Your task to perform on an android device: What is the recent news? Image 0: 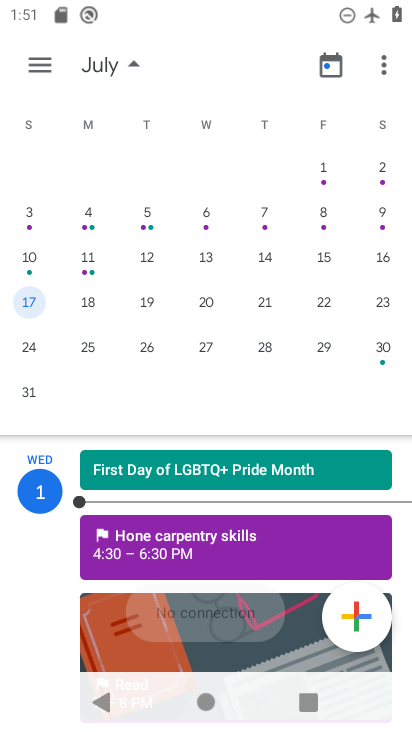
Step 0: press home button
Your task to perform on an android device: What is the recent news? Image 1: 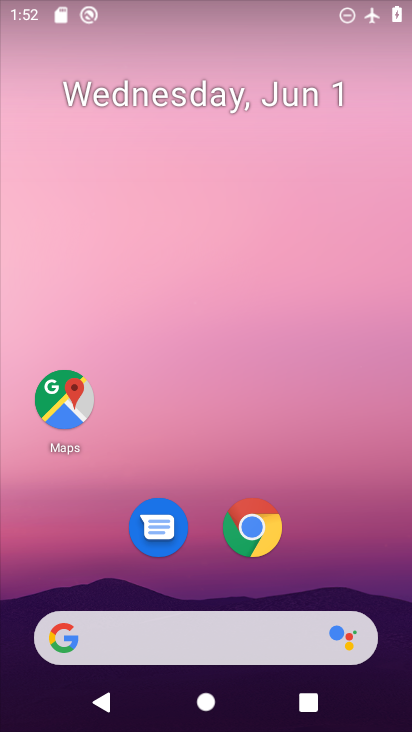
Step 1: click (263, 638)
Your task to perform on an android device: What is the recent news? Image 2: 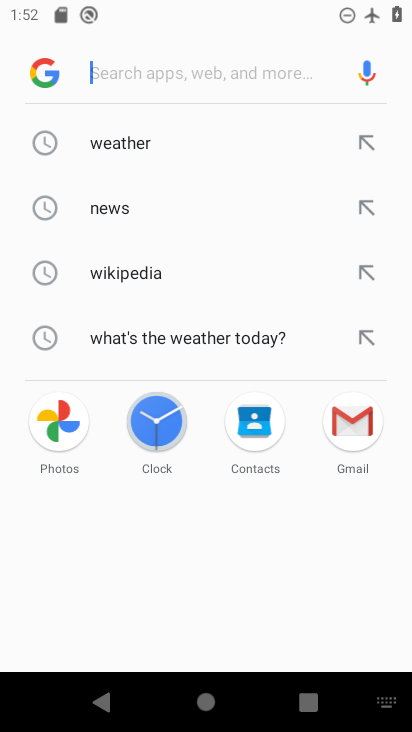
Step 2: type "What is the recent news?"
Your task to perform on an android device: What is the recent news? Image 3: 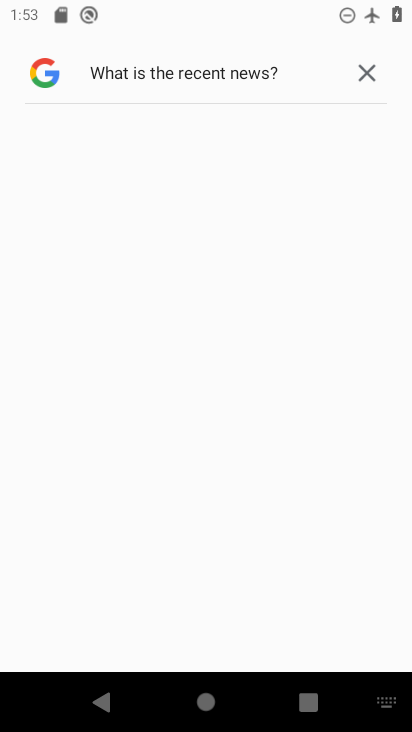
Step 3: task complete